Your task to perform on an android device: turn pop-ups off in chrome Image 0: 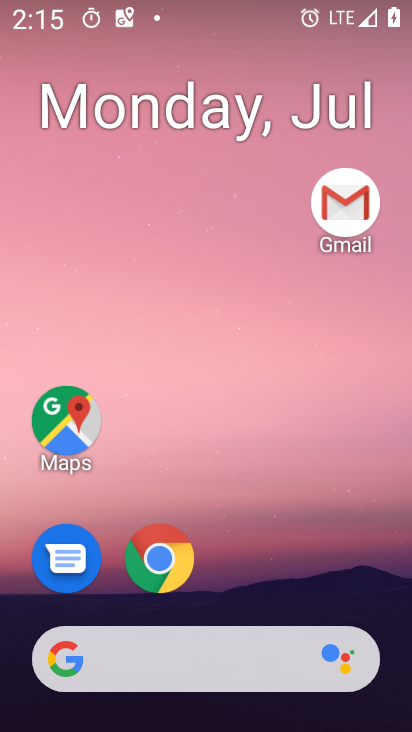
Step 0: drag from (289, 523) to (291, 66)
Your task to perform on an android device: turn pop-ups off in chrome Image 1: 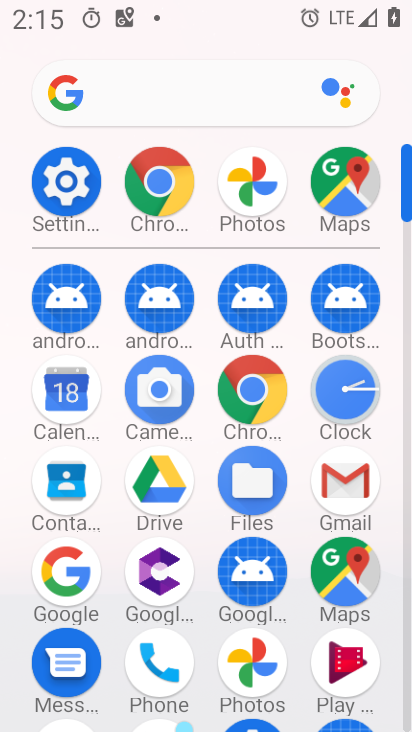
Step 1: click (262, 389)
Your task to perform on an android device: turn pop-ups off in chrome Image 2: 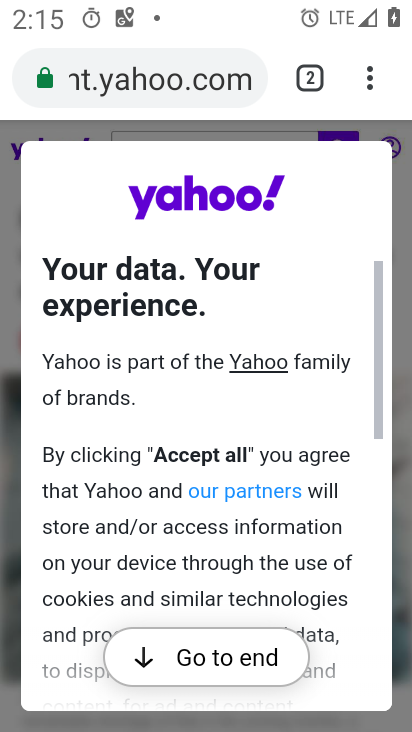
Step 2: click (373, 84)
Your task to perform on an android device: turn pop-ups off in chrome Image 3: 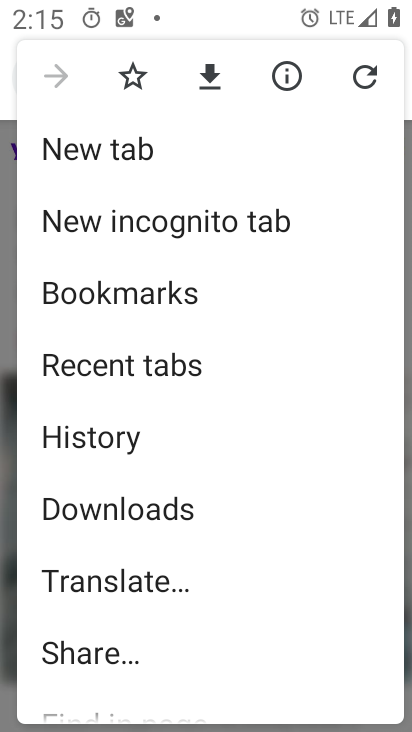
Step 3: drag from (336, 451) to (336, 374)
Your task to perform on an android device: turn pop-ups off in chrome Image 4: 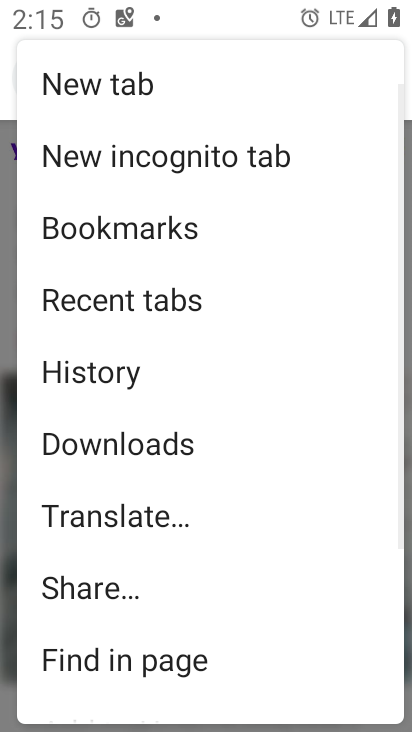
Step 4: drag from (307, 496) to (310, 297)
Your task to perform on an android device: turn pop-ups off in chrome Image 5: 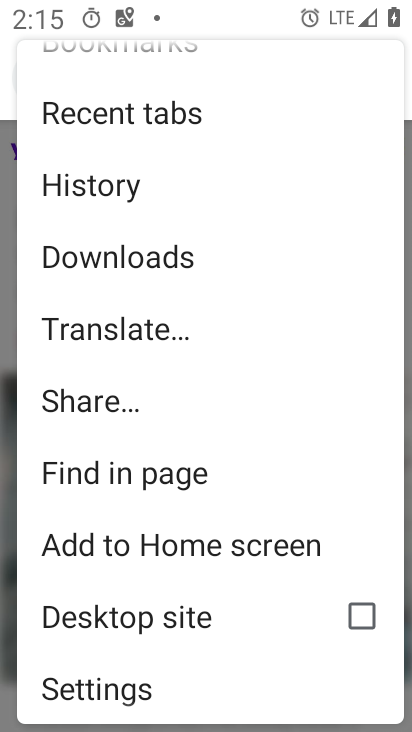
Step 5: drag from (311, 398) to (311, 267)
Your task to perform on an android device: turn pop-ups off in chrome Image 6: 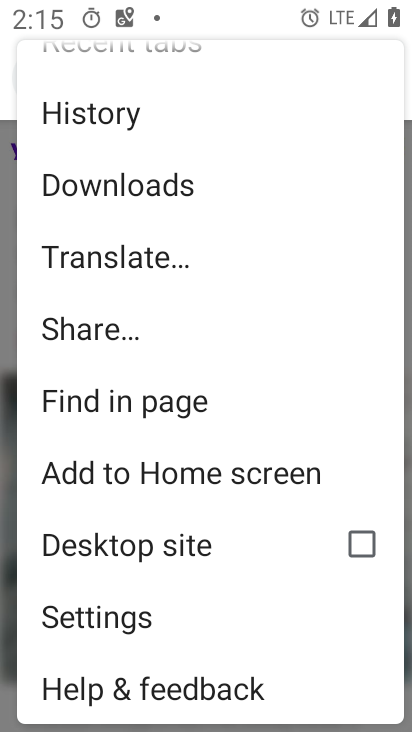
Step 6: drag from (320, 403) to (328, 302)
Your task to perform on an android device: turn pop-ups off in chrome Image 7: 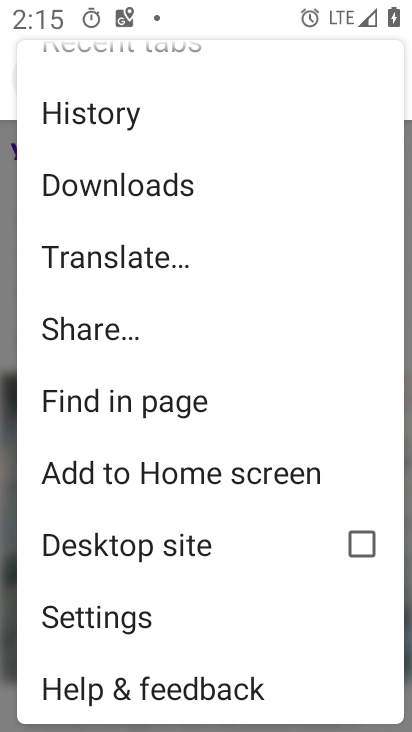
Step 7: click (225, 628)
Your task to perform on an android device: turn pop-ups off in chrome Image 8: 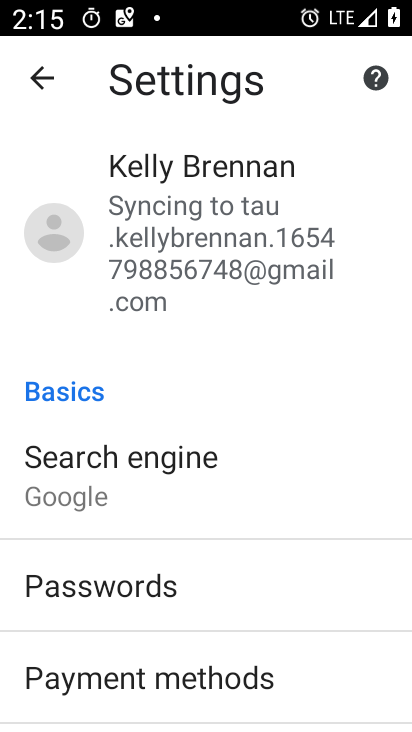
Step 8: drag from (282, 468) to (300, 378)
Your task to perform on an android device: turn pop-ups off in chrome Image 9: 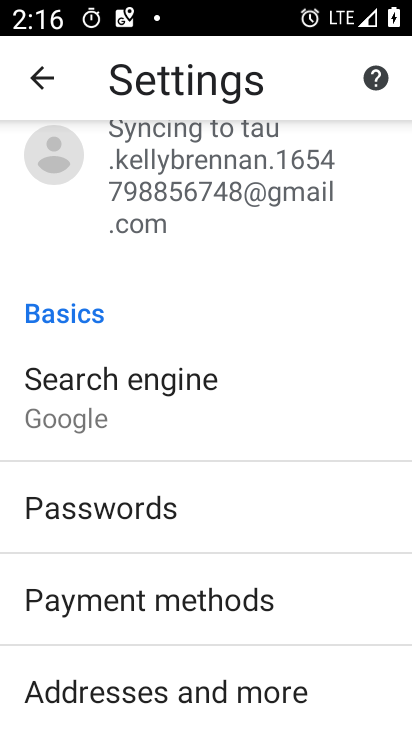
Step 9: drag from (313, 496) to (314, 404)
Your task to perform on an android device: turn pop-ups off in chrome Image 10: 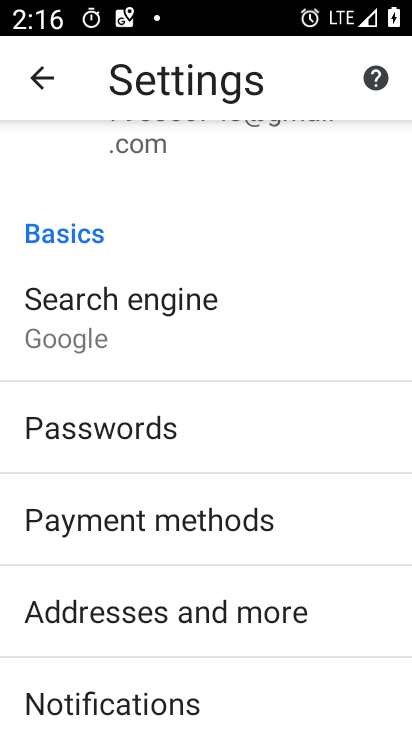
Step 10: drag from (330, 515) to (330, 432)
Your task to perform on an android device: turn pop-ups off in chrome Image 11: 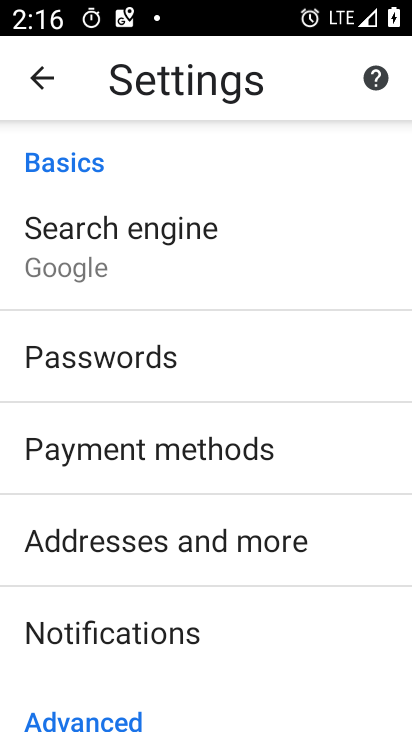
Step 11: drag from (341, 543) to (348, 442)
Your task to perform on an android device: turn pop-ups off in chrome Image 12: 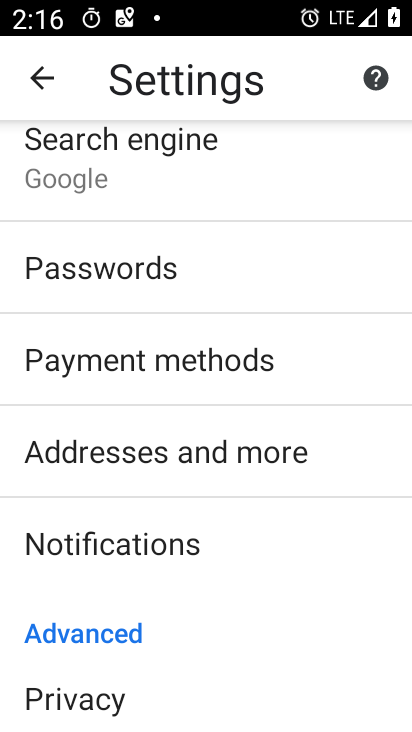
Step 12: drag from (349, 544) to (349, 436)
Your task to perform on an android device: turn pop-ups off in chrome Image 13: 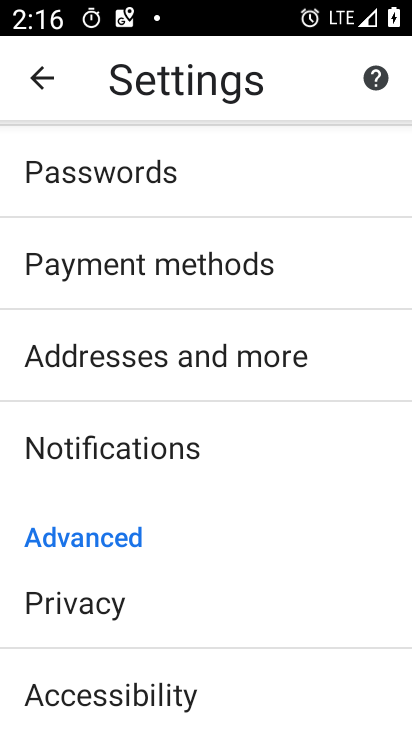
Step 13: drag from (334, 521) to (334, 436)
Your task to perform on an android device: turn pop-ups off in chrome Image 14: 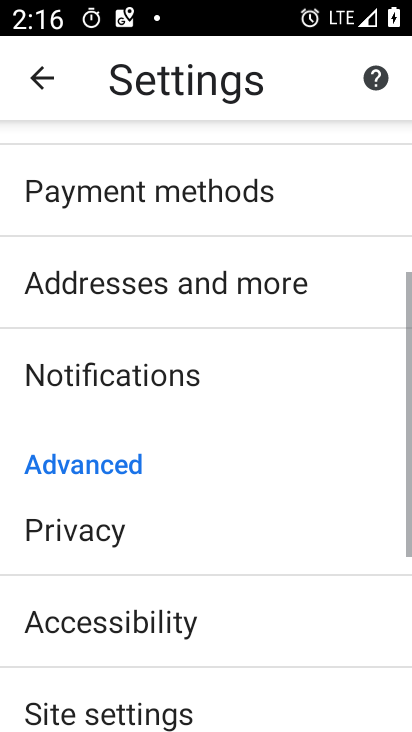
Step 14: drag from (316, 579) to (316, 488)
Your task to perform on an android device: turn pop-ups off in chrome Image 15: 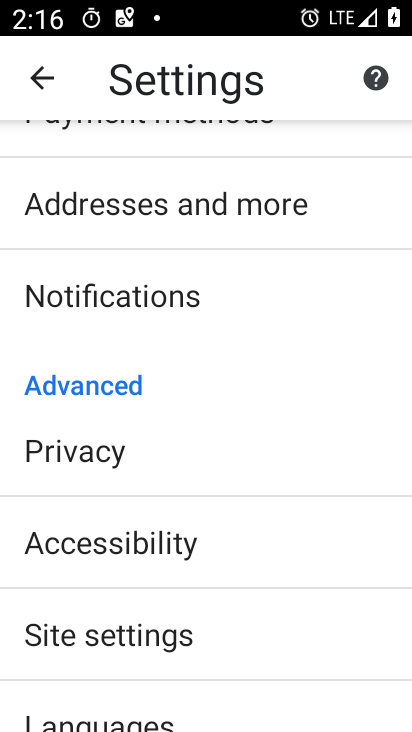
Step 15: drag from (299, 563) to (309, 452)
Your task to perform on an android device: turn pop-ups off in chrome Image 16: 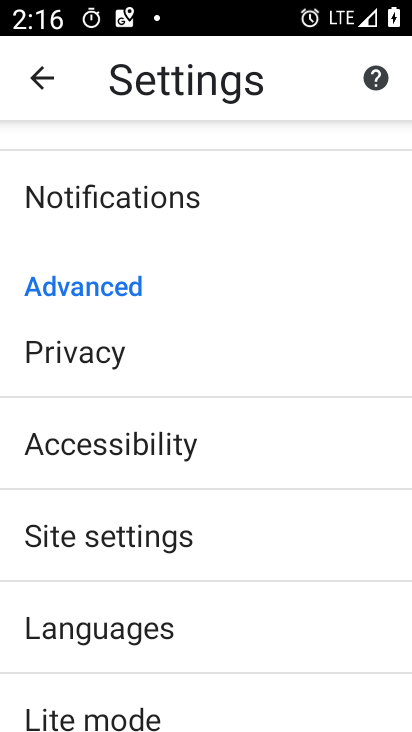
Step 16: click (297, 537)
Your task to perform on an android device: turn pop-ups off in chrome Image 17: 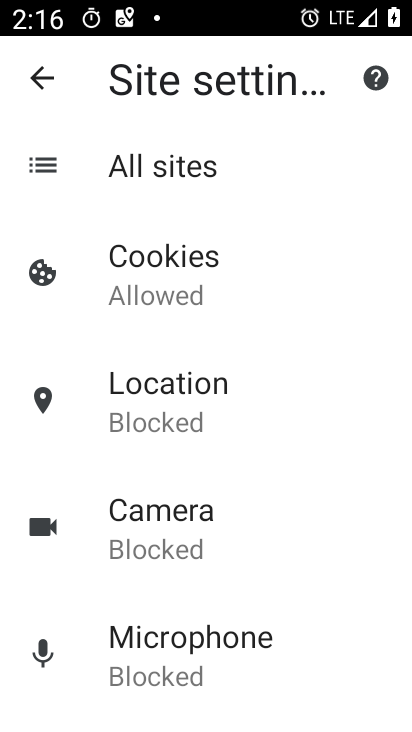
Step 17: drag from (320, 582) to (326, 494)
Your task to perform on an android device: turn pop-ups off in chrome Image 18: 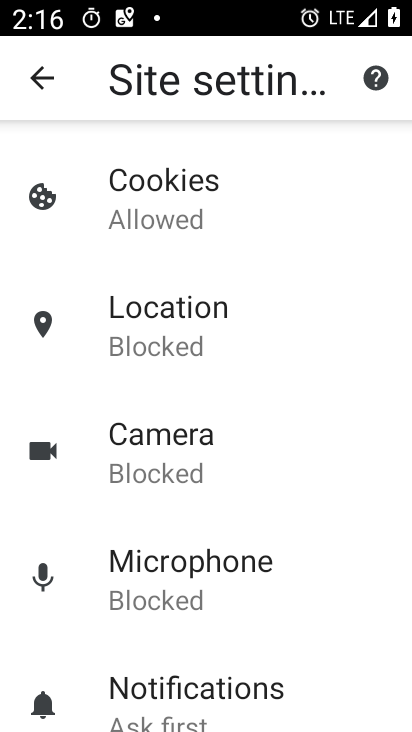
Step 18: drag from (336, 592) to (338, 521)
Your task to perform on an android device: turn pop-ups off in chrome Image 19: 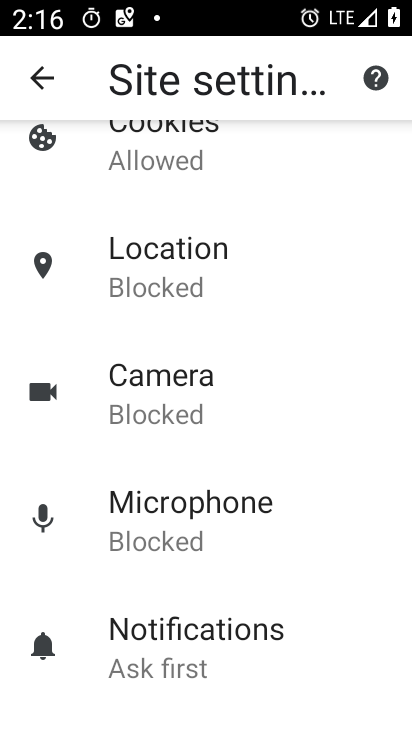
Step 19: drag from (338, 593) to (342, 498)
Your task to perform on an android device: turn pop-ups off in chrome Image 20: 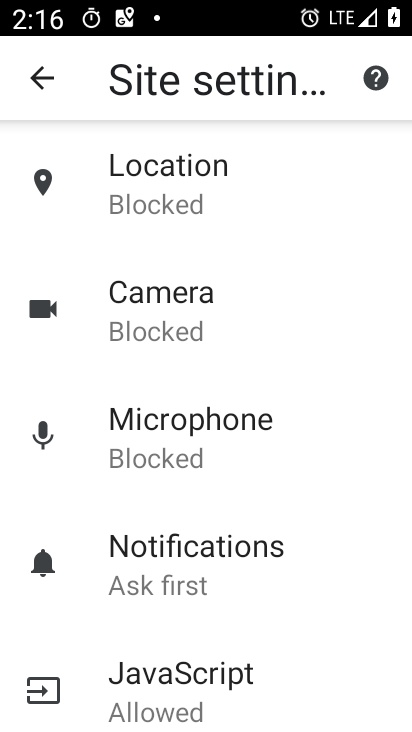
Step 20: drag from (338, 569) to (339, 458)
Your task to perform on an android device: turn pop-ups off in chrome Image 21: 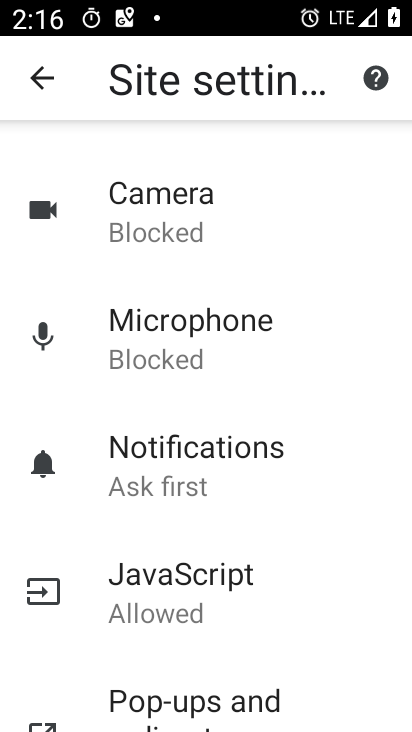
Step 21: drag from (328, 573) to (335, 435)
Your task to perform on an android device: turn pop-ups off in chrome Image 22: 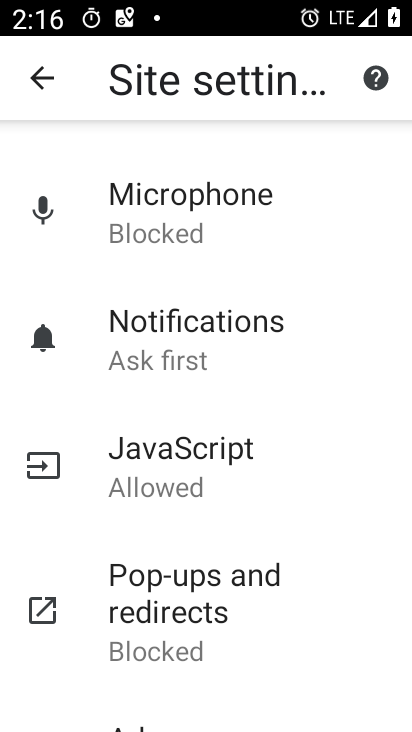
Step 22: drag from (337, 572) to (338, 455)
Your task to perform on an android device: turn pop-ups off in chrome Image 23: 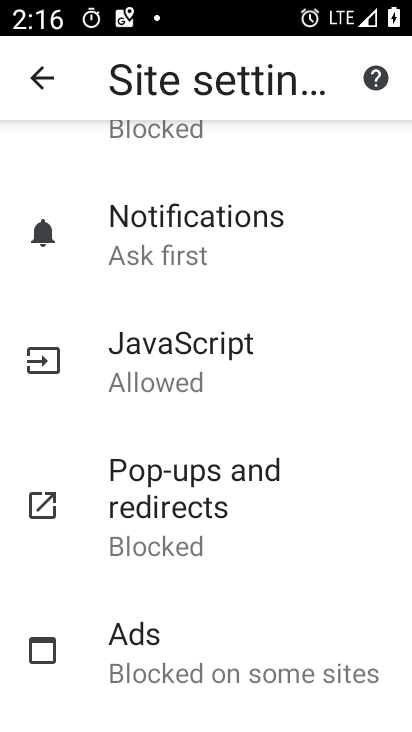
Step 23: click (271, 515)
Your task to perform on an android device: turn pop-ups off in chrome Image 24: 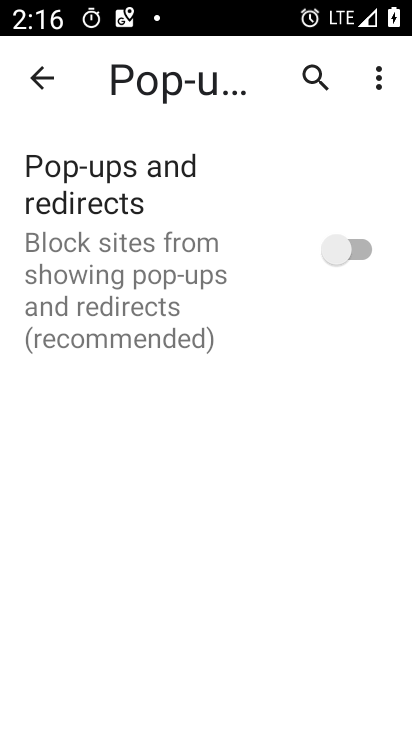
Step 24: task complete